Your task to perform on an android device: Open location settings Image 0: 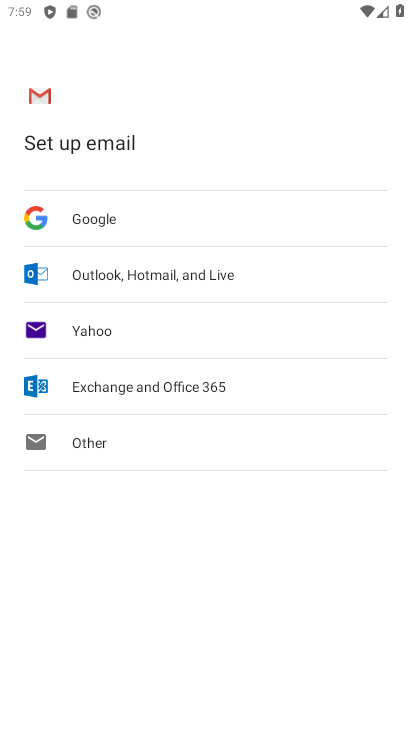
Step 0: press home button
Your task to perform on an android device: Open location settings Image 1: 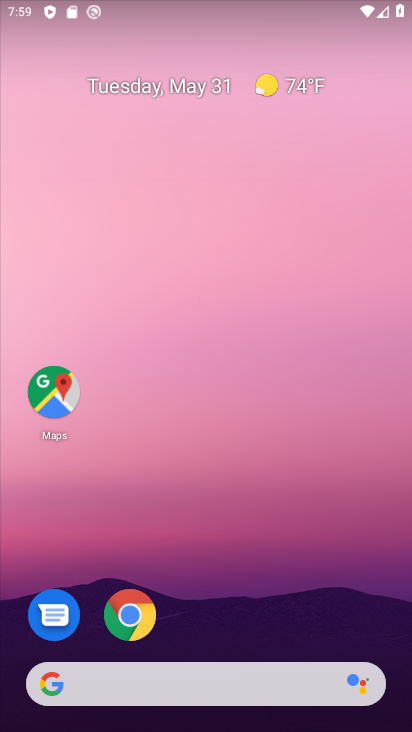
Step 1: drag from (211, 642) to (274, 233)
Your task to perform on an android device: Open location settings Image 2: 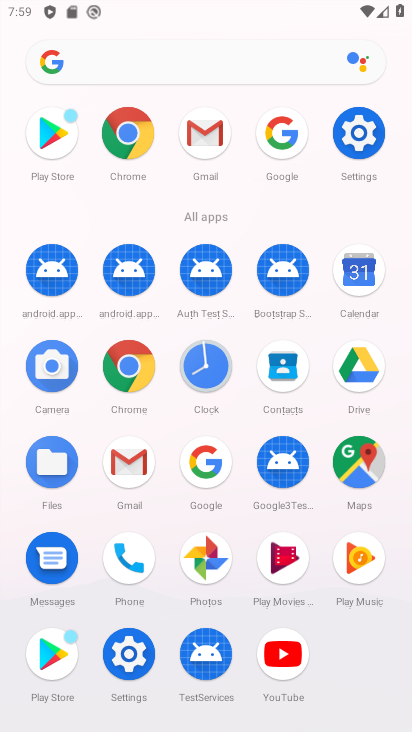
Step 2: click (361, 137)
Your task to perform on an android device: Open location settings Image 3: 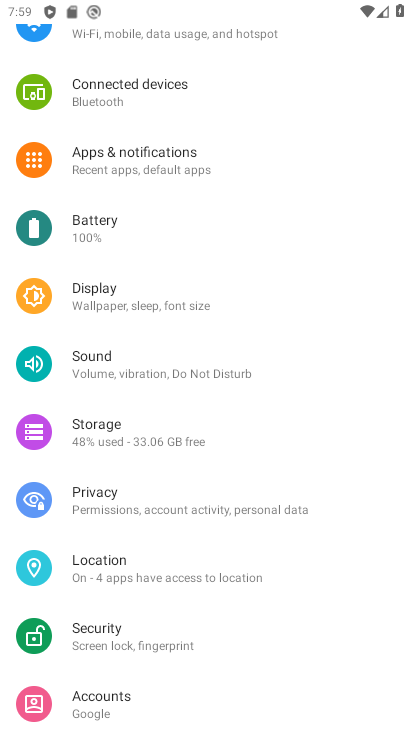
Step 3: click (210, 568)
Your task to perform on an android device: Open location settings Image 4: 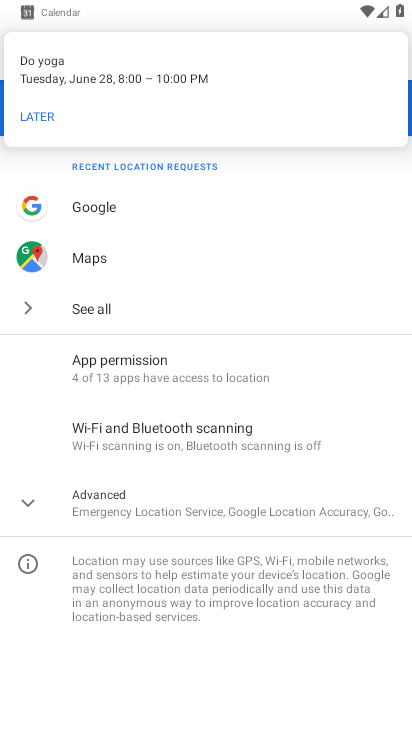
Step 4: task complete